Your task to perform on an android device: Show me recent news Image 0: 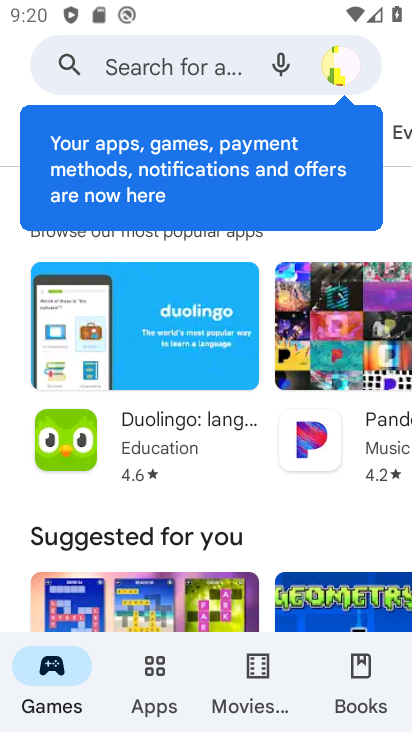
Step 0: press home button
Your task to perform on an android device: Show me recent news Image 1: 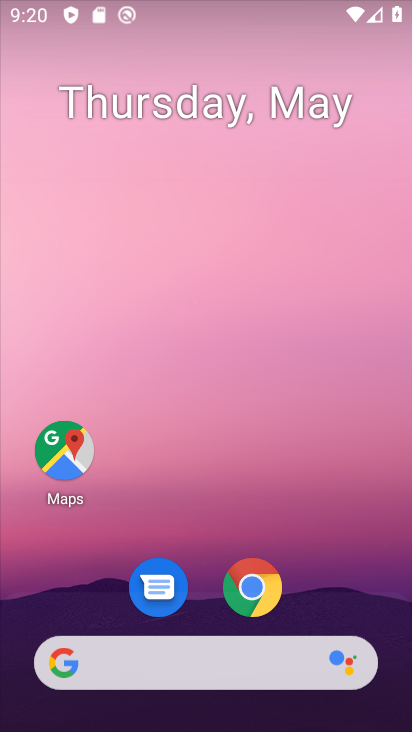
Step 1: click (142, 674)
Your task to perform on an android device: Show me recent news Image 2: 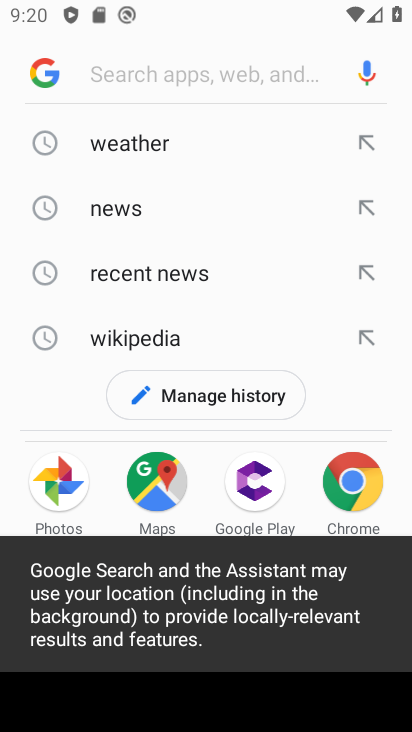
Step 2: click (134, 281)
Your task to perform on an android device: Show me recent news Image 3: 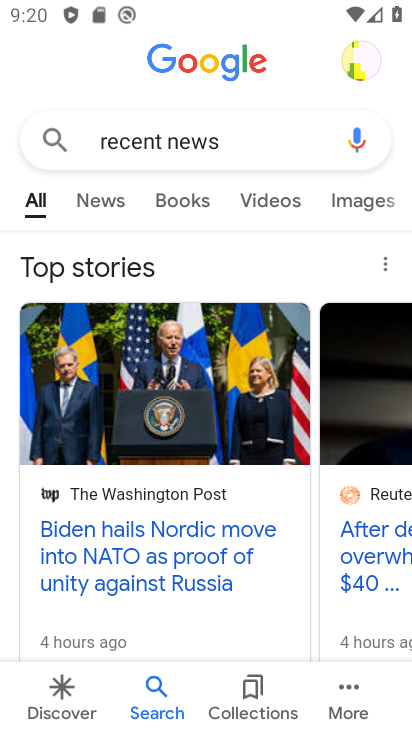
Step 3: drag from (261, 559) to (250, 361)
Your task to perform on an android device: Show me recent news Image 4: 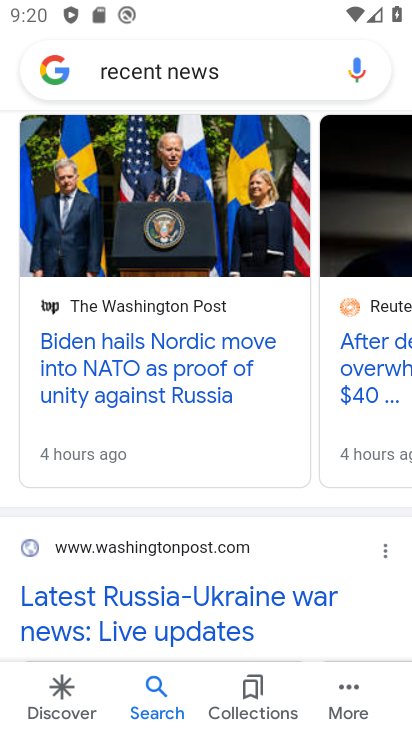
Step 4: drag from (179, 323) to (195, 508)
Your task to perform on an android device: Show me recent news Image 5: 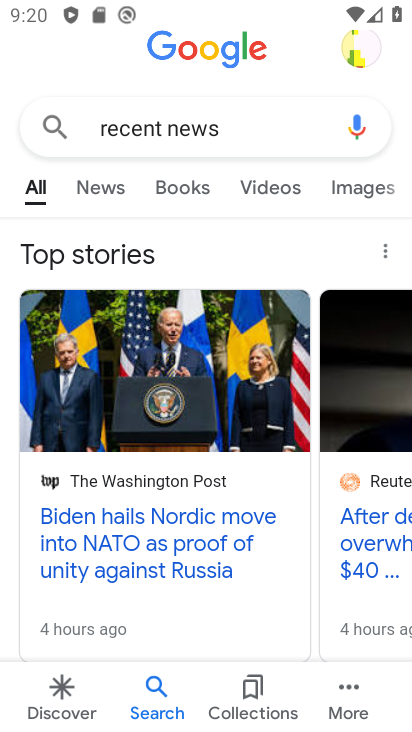
Step 5: drag from (193, 196) to (213, 404)
Your task to perform on an android device: Show me recent news Image 6: 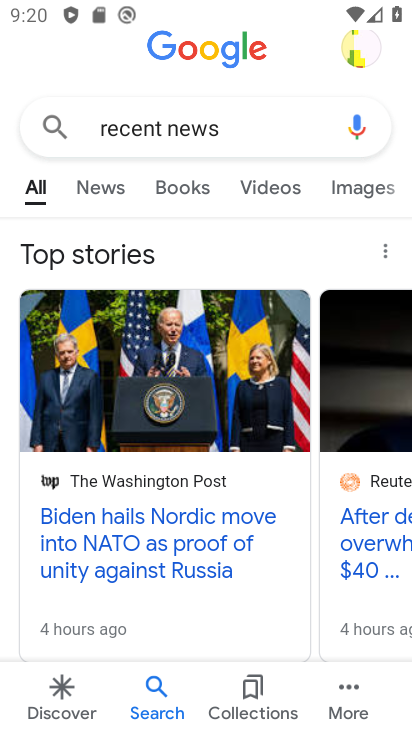
Step 6: click (112, 200)
Your task to perform on an android device: Show me recent news Image 7: 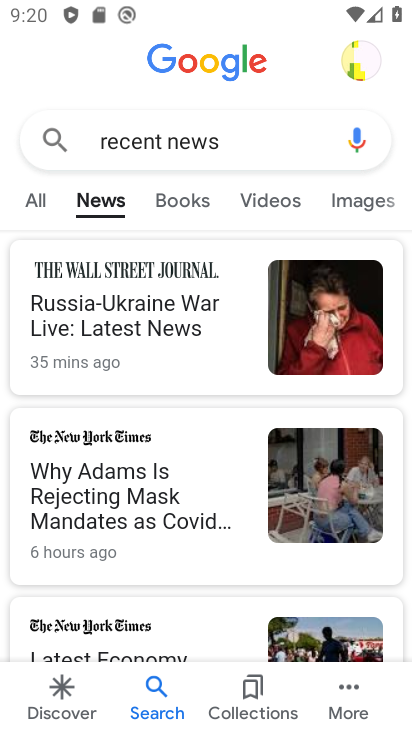
Step 7: click (96, 327)
Your task to perform on an android device: Show me recent news Image 8: 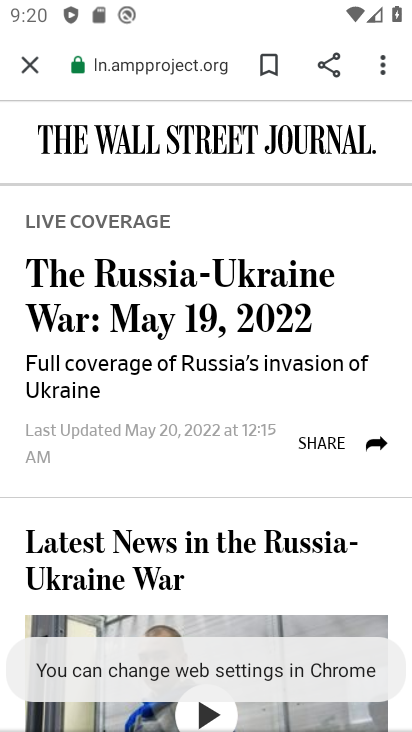
Step 8: task complete